Your task to perform on an android device: open a new tab in the chrome app Image 0: 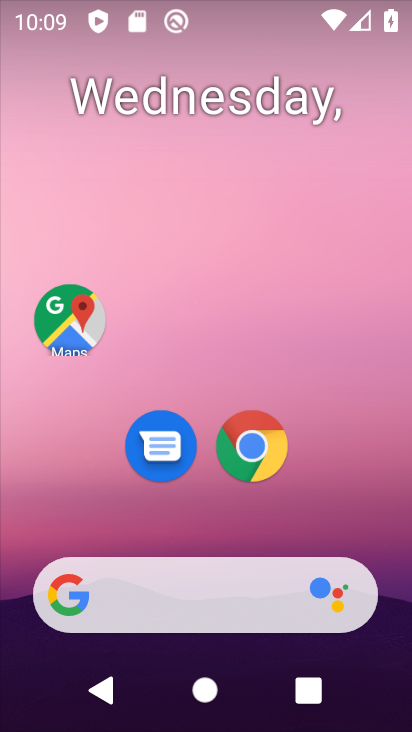
Step 0: click (266, 468)
Your task to perform on an android device: open a new tab in the chrome app Image 1: 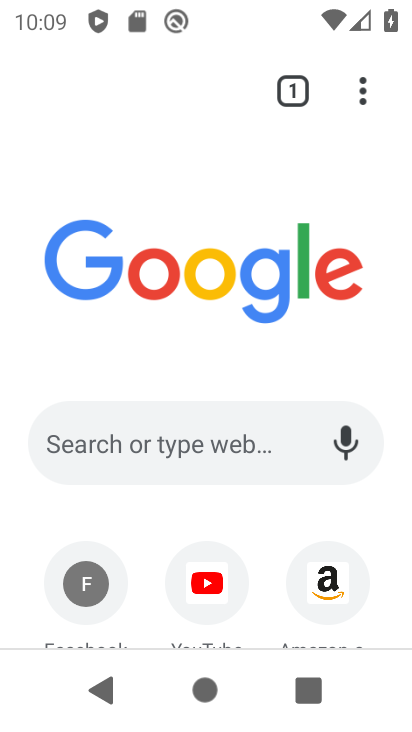
Step 1: task complete